Your task to perform on an android device: see tabs open on other devices in the chrome app Image 0: 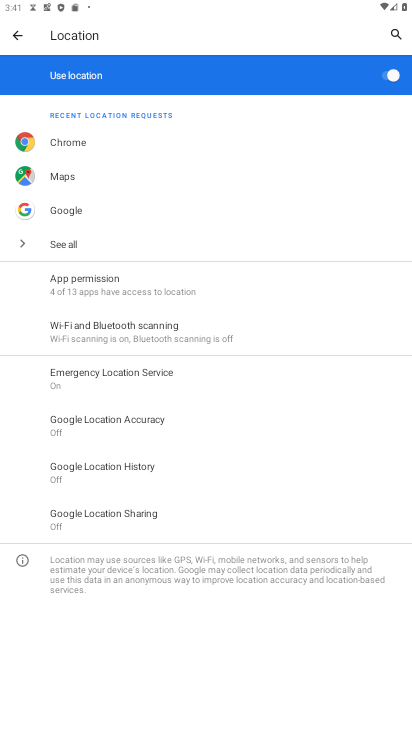
Step 0: press home button
Your task to perform on an android device: see tabs open on other devices in the chrome app Image 1: 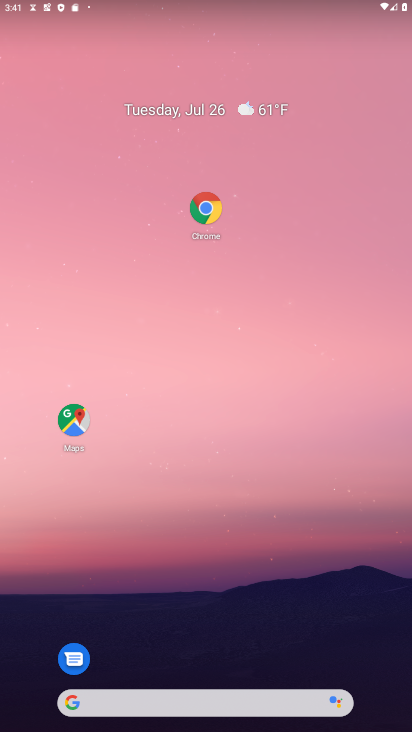
Step 1: click (198, 208)
Your task to perform on an android device: see tabs open on other devices in the chrome app Image 2: 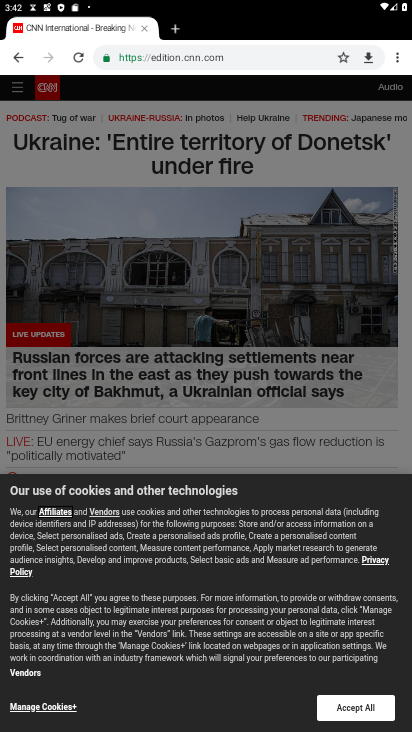
Step 2: click (394, 60)
Your task to perform on an android device: see tabs open on other devices in the chrome app Image 3: 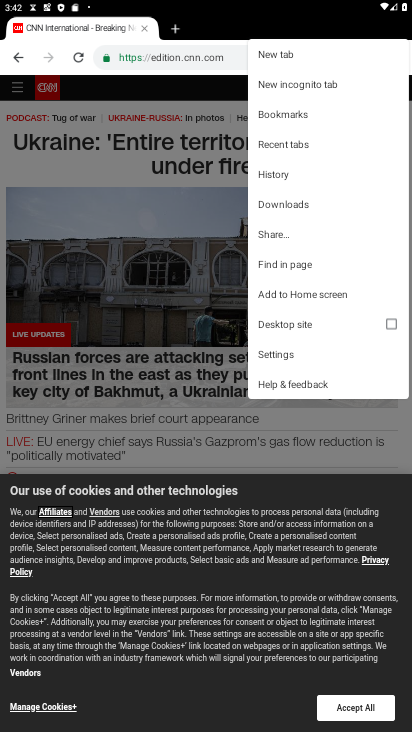
Step 3: click (293, 142)
Your task to perform on an android device: see tabs open on other devices in the chrome app Image 4: 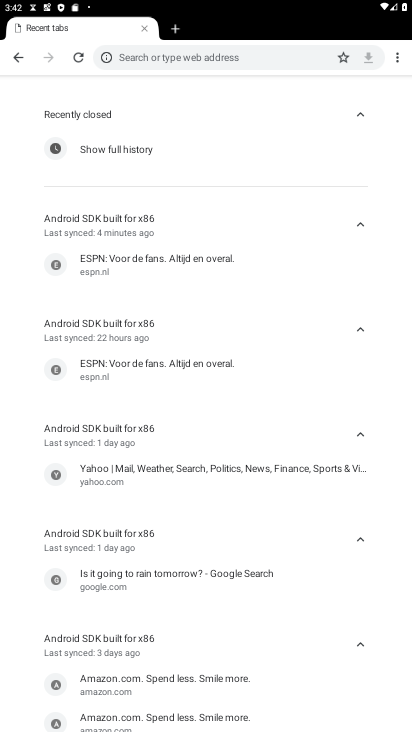
Step 4: task complete